Your task to perform on an android device: check google app version Image 0: 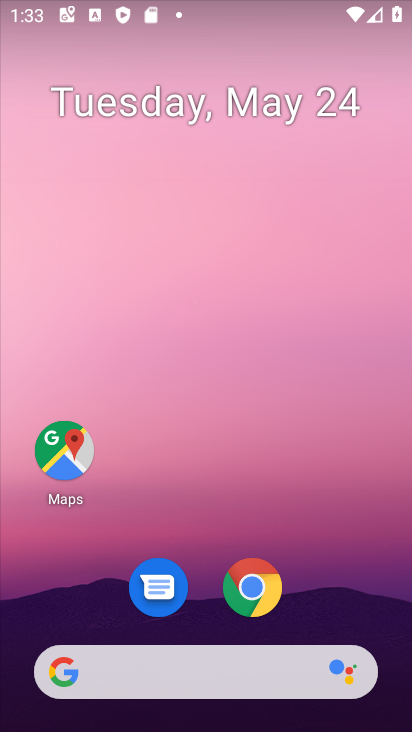
Step 0: drag from (221, 695) to (139, 200)
Your task to perform on an android device: check google app version Image 1: 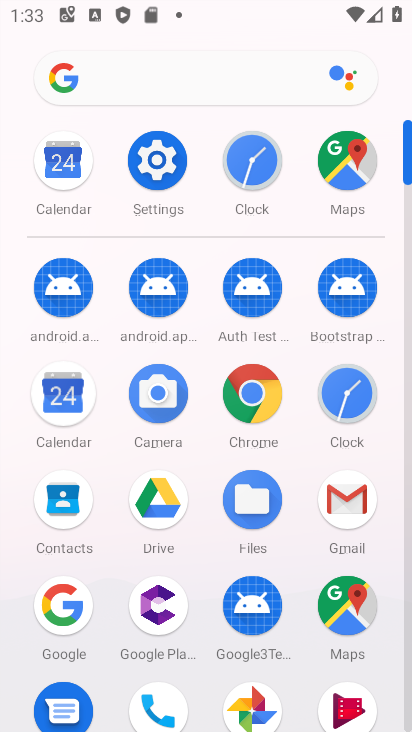
Step 1: click (53, 613)
Your task to perform on an android device: check google app version Image 2: 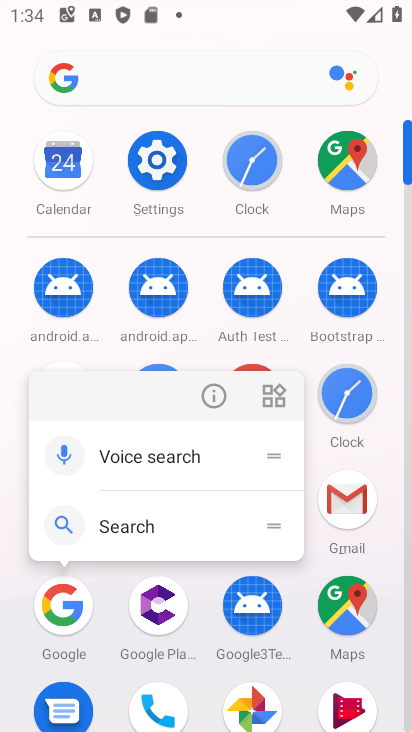
Step 2: click (209, 401)
Your task to perform on an android device: check google app version Image 3: 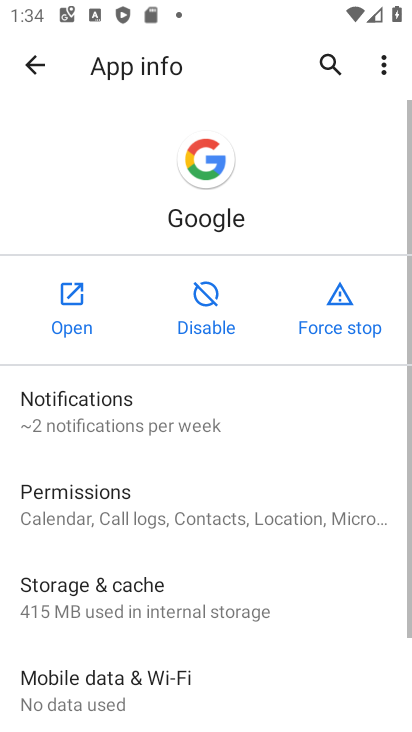
Step 3: drag from (384, 635) to (270, 74)
Your task to perform on an android device: check google app version Image 4: 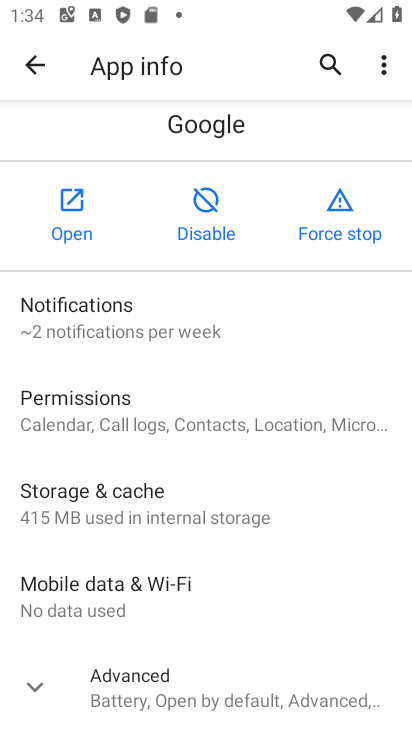
Step 4: click (275, 710)
Your task to perform on an android device: check google app version Image 5: 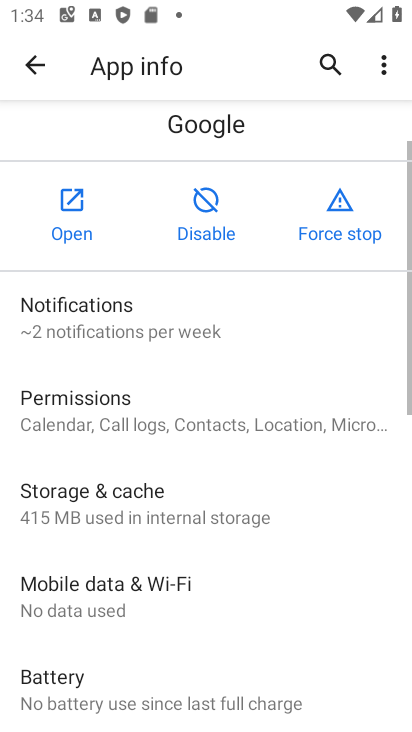
Step 5: task complete